Your task to perform on an android device: Go to notification settings Image 0: 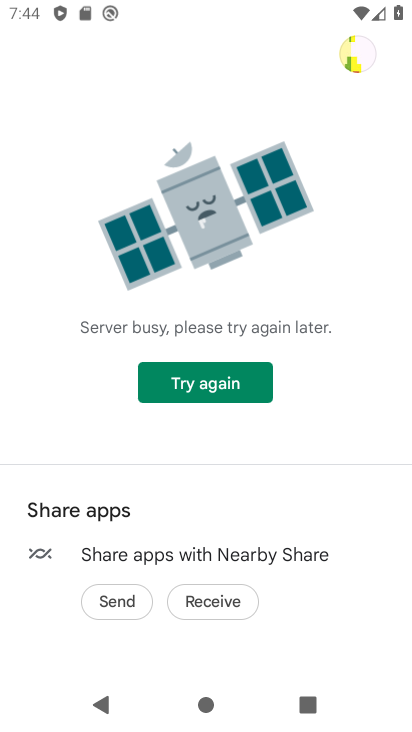
Step 0: press home button
Your task to perform on an android device: Go to notification settings Image 1: 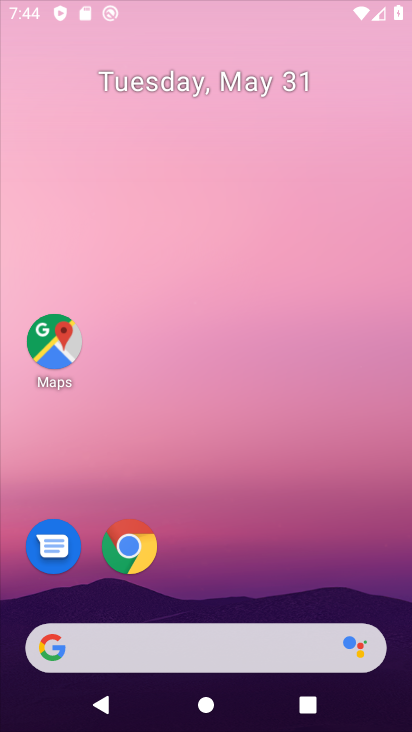
Step 1: drag from (253, 584) to (281, 26)
Your task to perform on an android device: Go to notification settings Image 2: 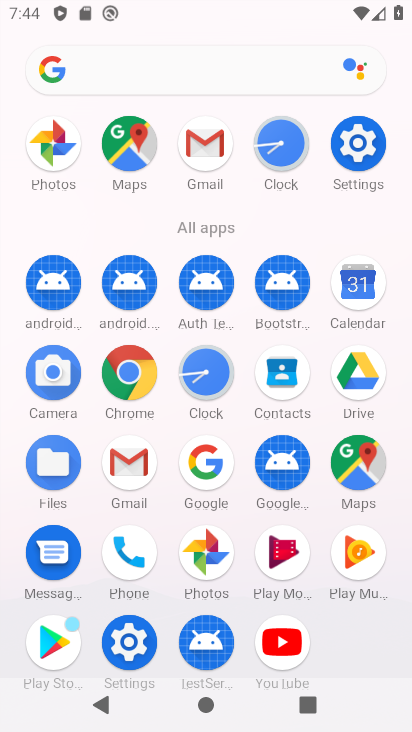
Step 2: click (362, 140)
Your task to perform on an android device: Go to notification settings Image 3: 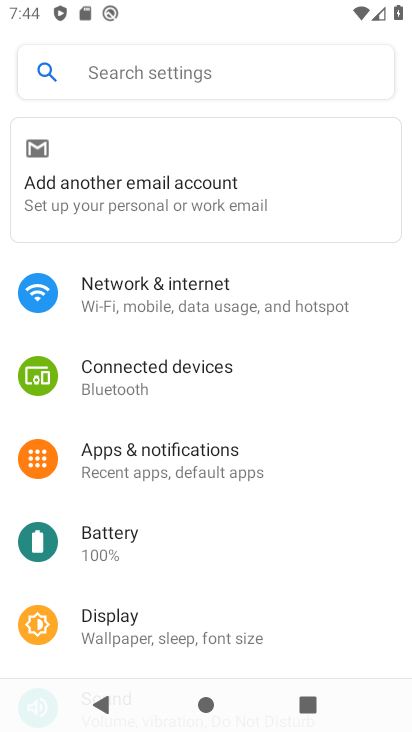
Step 3: click (151, 460)
Your task to perform on an android device: Go to notification settings Image 4: 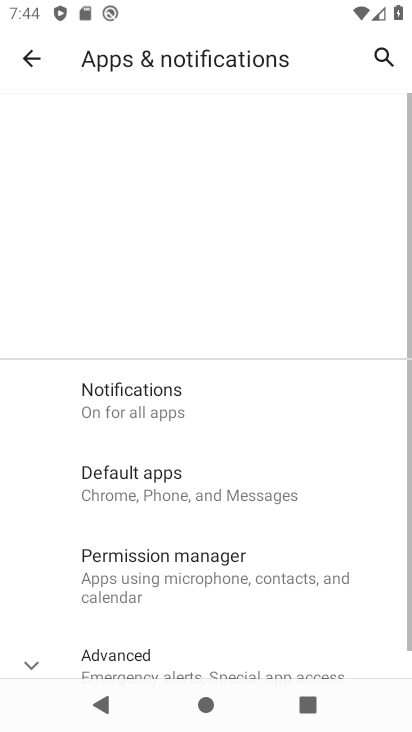
Step 4: click (136, 410)
Your task to perform on an android device: Go to notification settings Image 5: 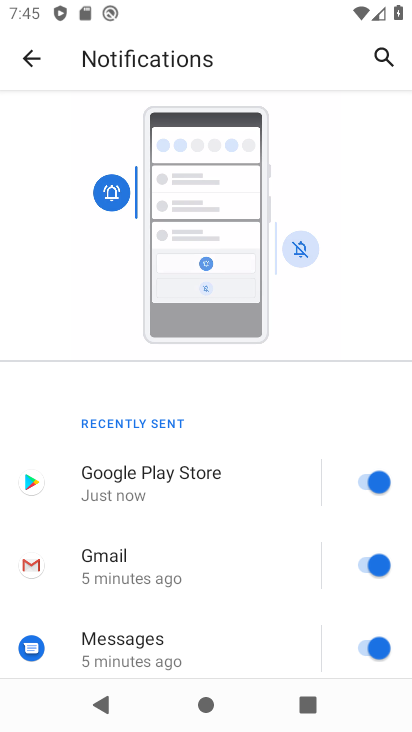
Step 5: task complete